Your task to perform on an android device: Open Chrome and go to settings Image 0: 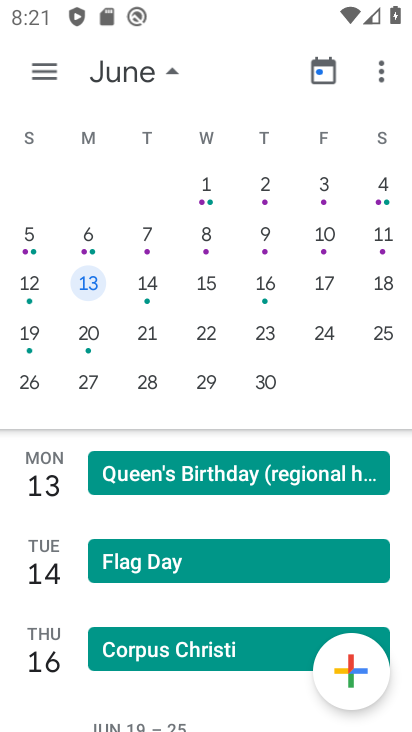
Step 0: press home button
Your task to perform on an android device: Open Chrome and go to settings Image 1: 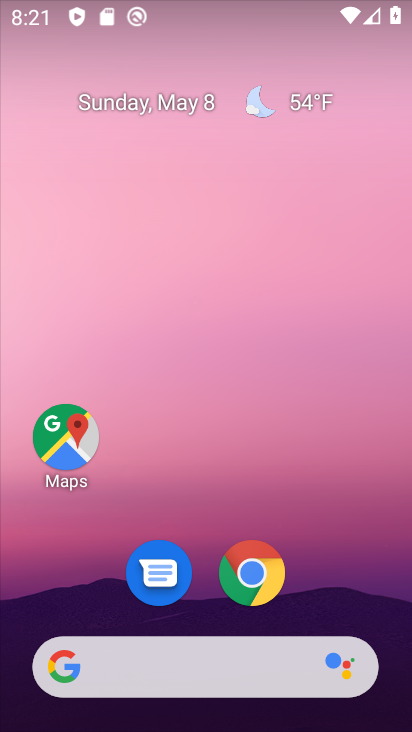
Step 1: click (252, 571)
Your task to perform on an android device: Open Chrome and go to settings Image 2: 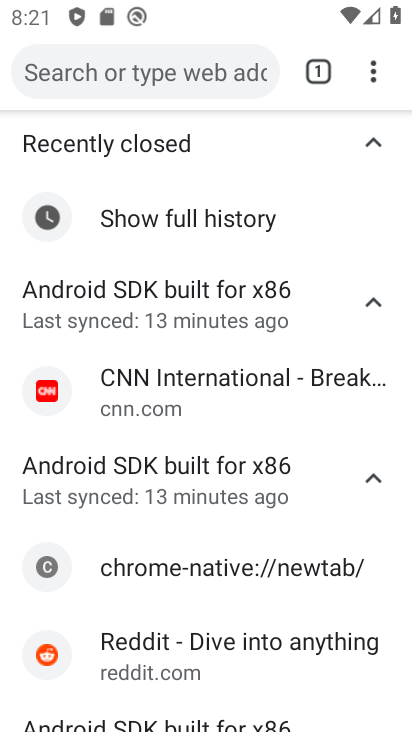
Step 2: task complete